Your task to perform on an android device: Go to Yahoo.com Image 0: 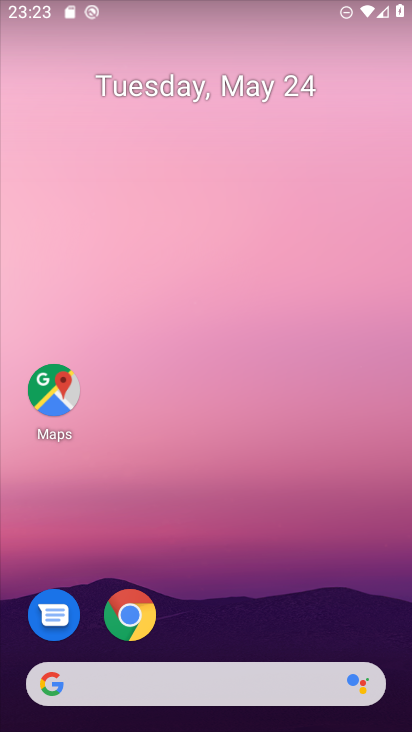
Step 0: press home button
Your task to perform on an android device: Go to Yahoo.com Image 1: 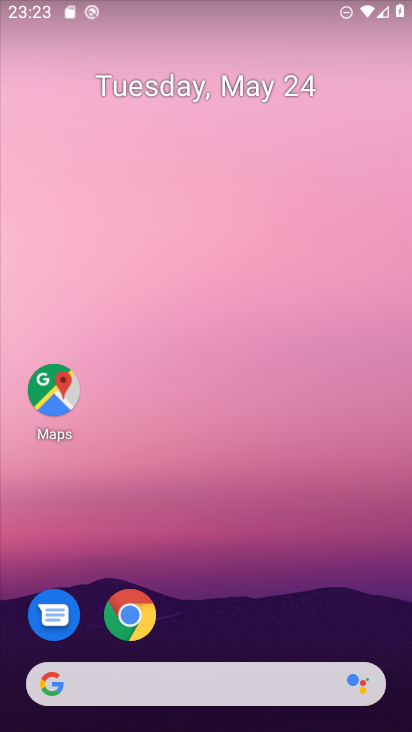
Step 1: drag from (228, 700) to (331, 3)
Your task to perform on an android device: Go to Yahoo.com Image 2: 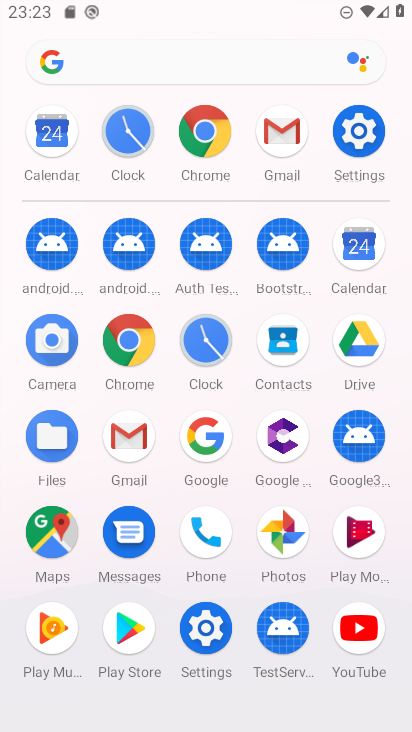
Step 2: click (216, 128)
Your task to perform on an android device: Go to Yahoo.com Image 3: 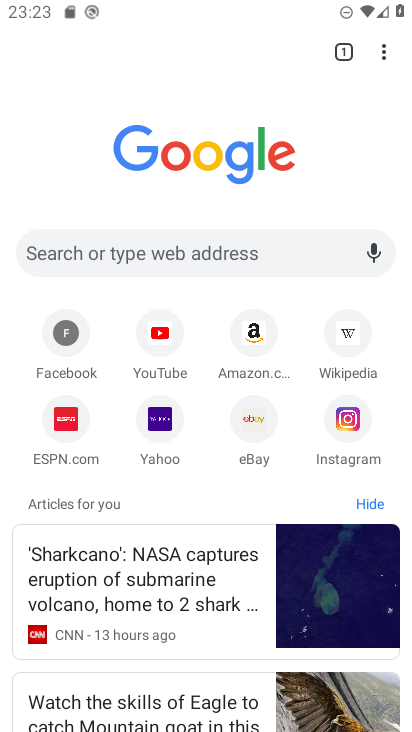
Step 3: click (160, 417)
Your task to perform on an android device: Go to Yahoo.com Image 4: 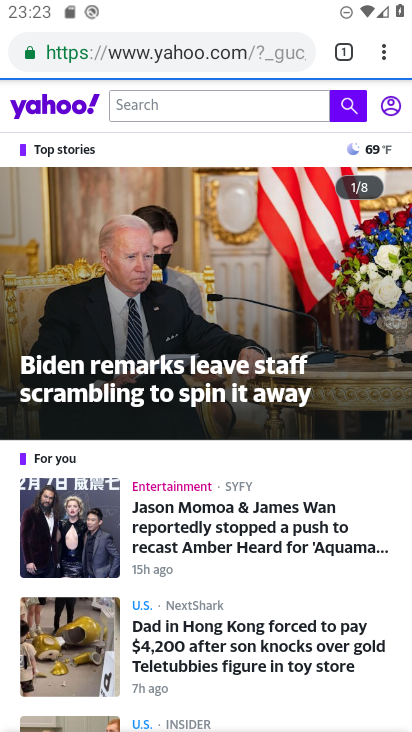
Step 4: task complete